Your task to perform on an android device: Is it going to rain today? Image 0: 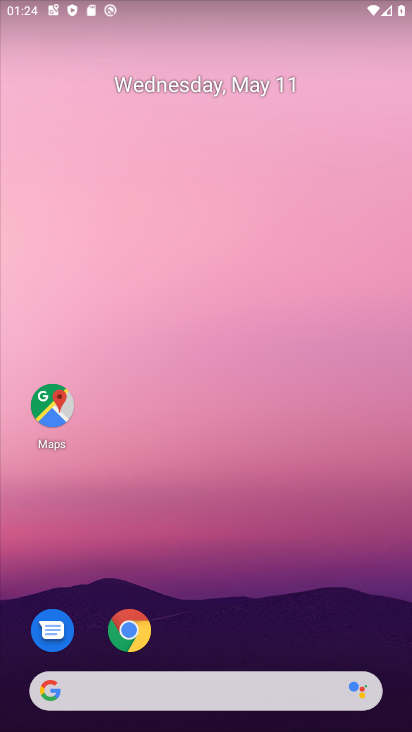
Step 0: drag from (294, 630) to (296, 85)
Your task to perform on an android device: Is it going to rain today? Image 1: 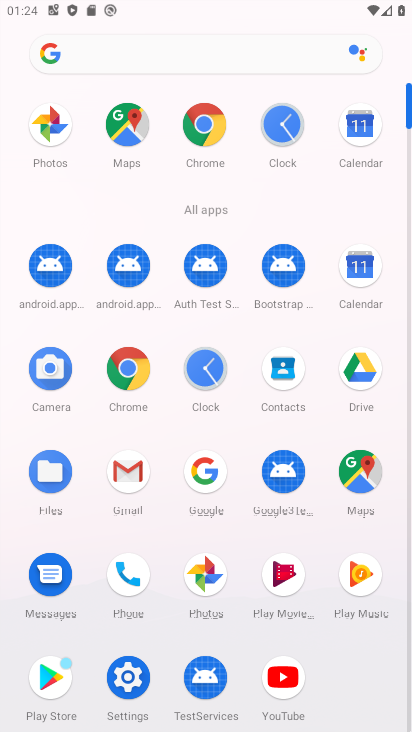
Step 1: click (203, 482)
Your task to perform on an android device: Is it going to rain today? Image 2: 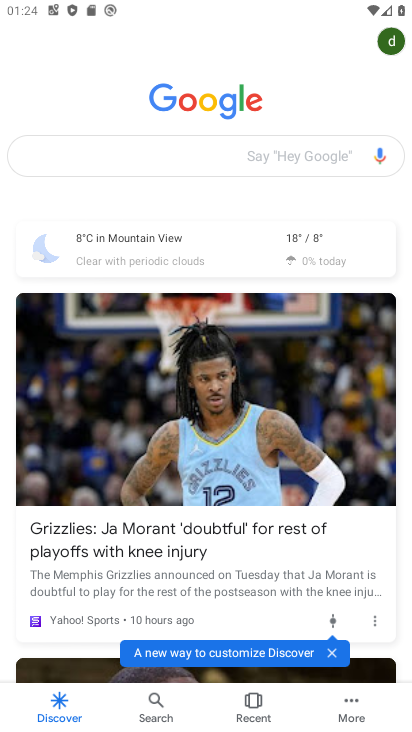
Step 2: click (174, 253)
Your task to perform on an android device: Is it going to rain today? Image 3: 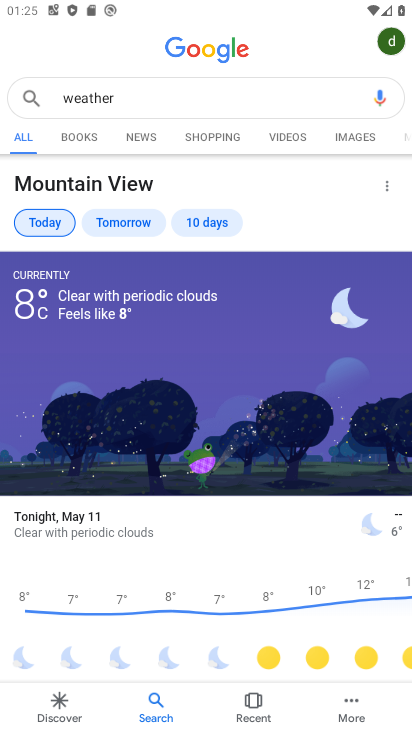
Step 3: task complete